Your task to perform on an android device: Do I have any events today? Image 0: 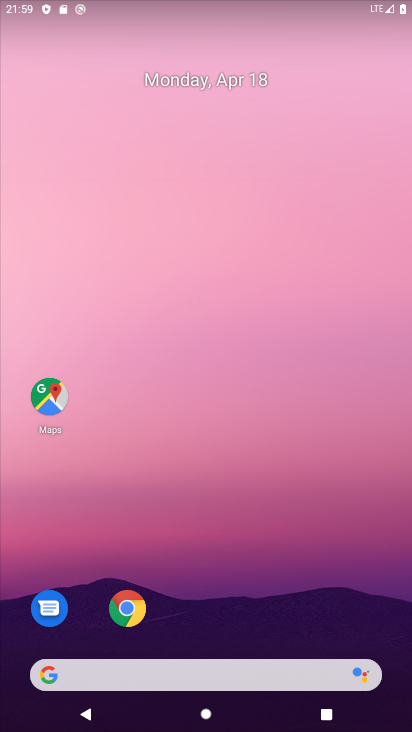
Step 0: drag from (230, 499) to (195, 37)
Your task to perform on an android device: Do I have any events today? Image 1: 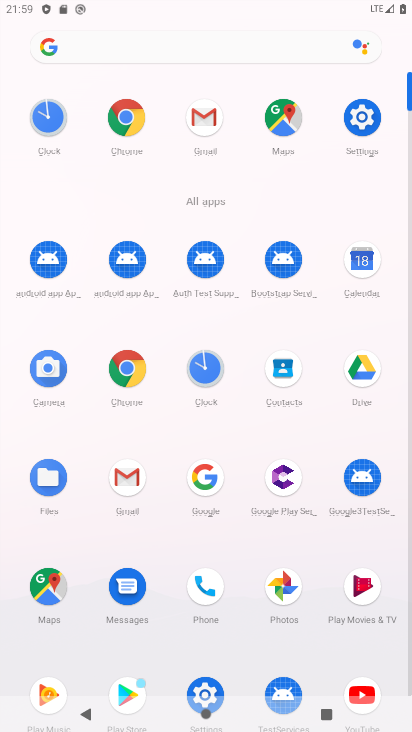
Step 1: click (357, 261)
Your task to perform on an android device: Do I have any events today? Image 2: 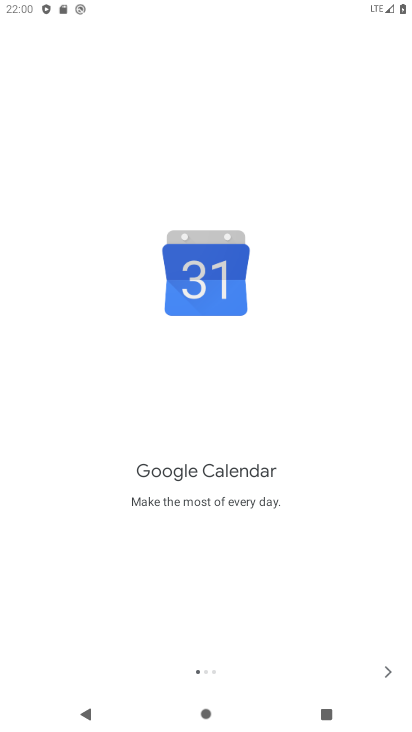
Step 2: click (387, 676)
Your task to perform on an android device: Do I have any events today? Image 3: 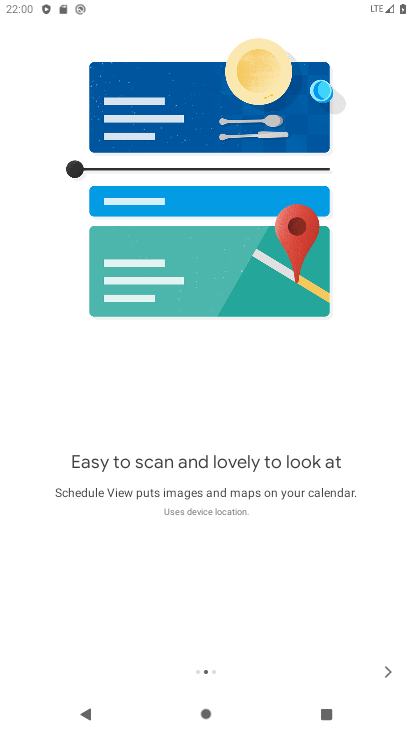
Step 3: click (385, 667)
Your task to perform on an android device: Do I have any events today? Image 4: 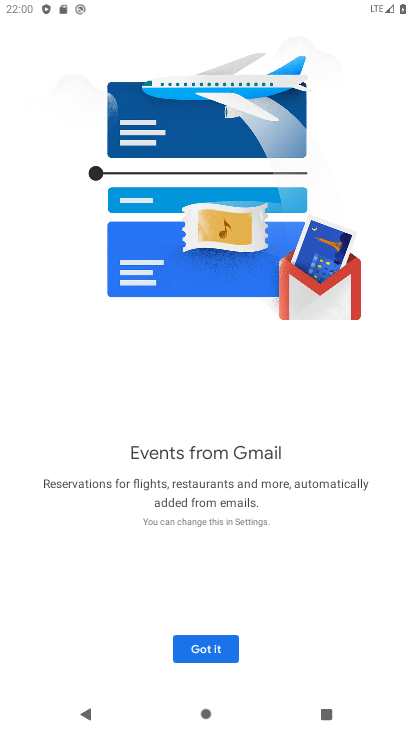
Step 4: click (206, 649)
Your task to perform on an android device: Do I have any events today? Image 5: 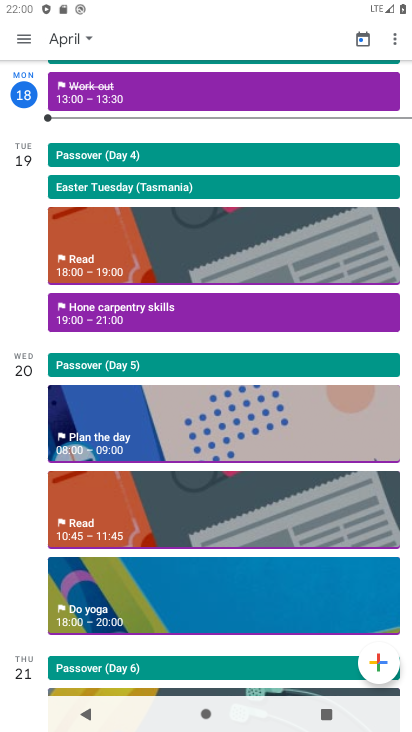
Step 5: click (14, 38)
Your task to perform on an android device: Do I have any events today? Image 6: 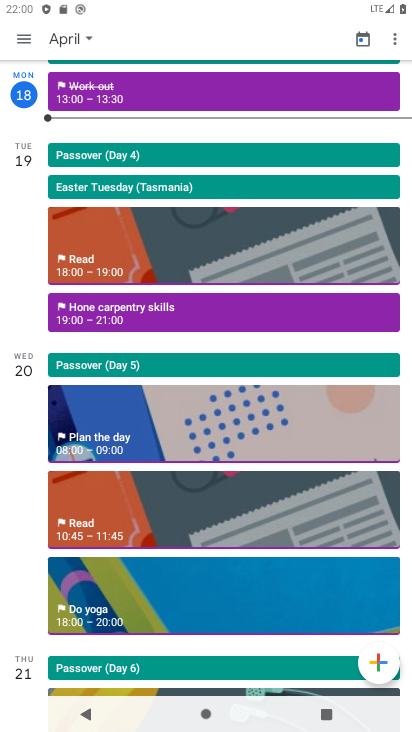
Step 6: click (27, 37)
Your task to perform on an android device: Do I have any events today? Image 7: 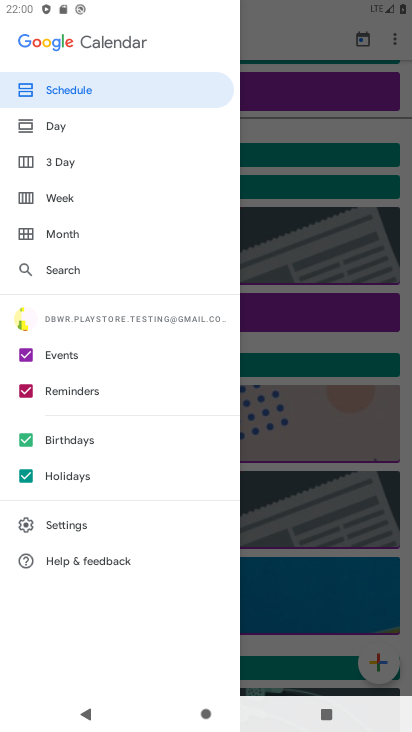
Step 7: click (28, 388)
Your task to perform on an android device: Do I have any events today? Image 8: 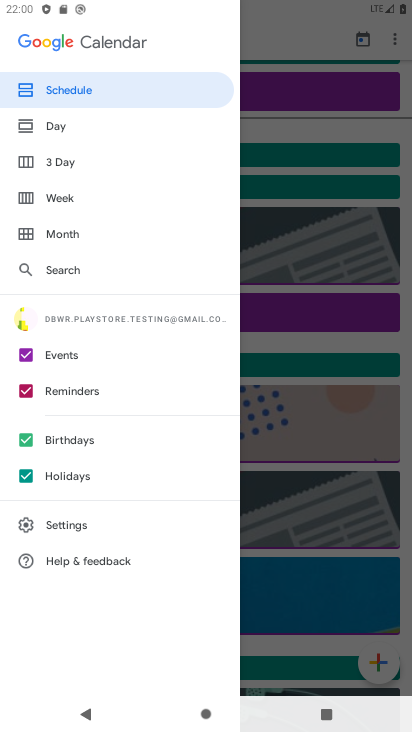
Step 8: click (21, 441)
Your task to perform on an android device: Do I have any events today? Image 9: 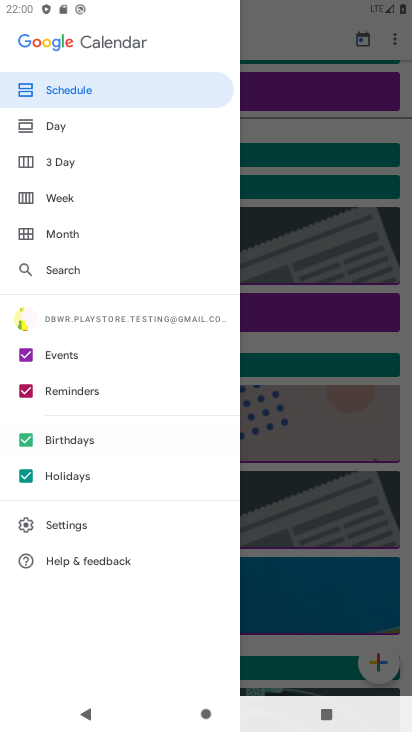
Step 9: click (27, 474)
Your task to perform on an android device: Do I have any events today? Image 10: 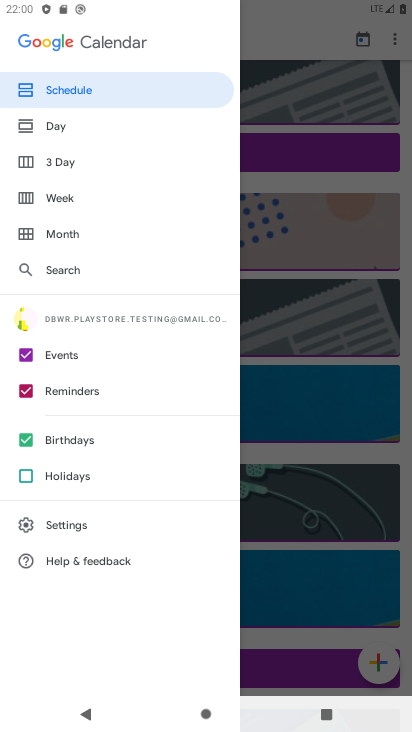
Step 10: click (24, 437)
Your task to perform on an android device: Do I have any events today? Image 11: 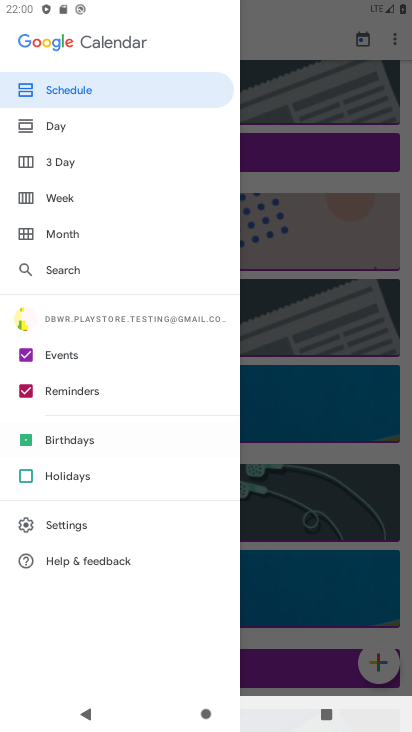
Step 11: click (28, 393)
Your task to perform on an android device: Do I have any events today? Image 12: 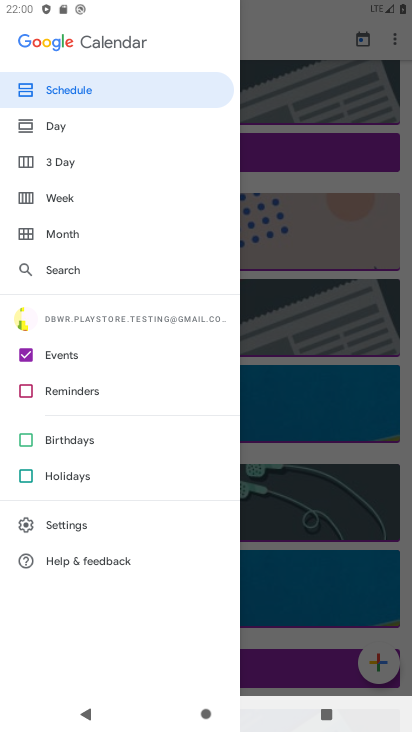
Step 12: click (288, 38)
Your task to perform on an android device: Do I have any events today? Image 13: 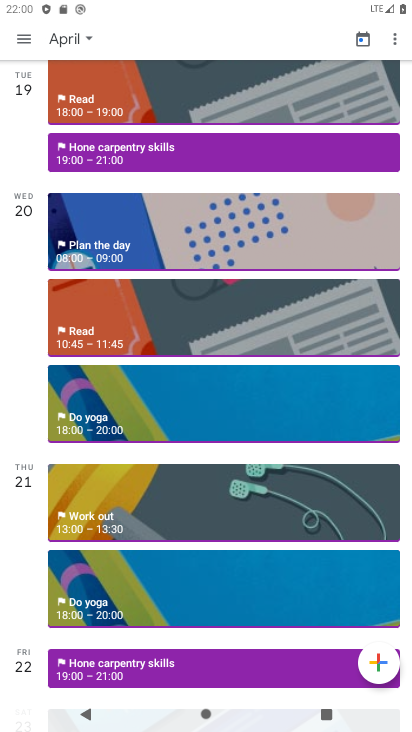
Step 13: click (21, 84)
Your task to perform on an android device: Do I have any events today? Image 14: 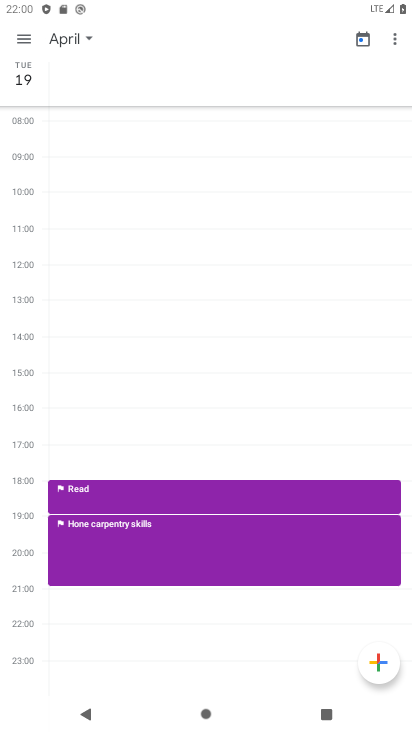
Step 14: task complete